Your task to perform on an android device: change text size in settings app Image 0: 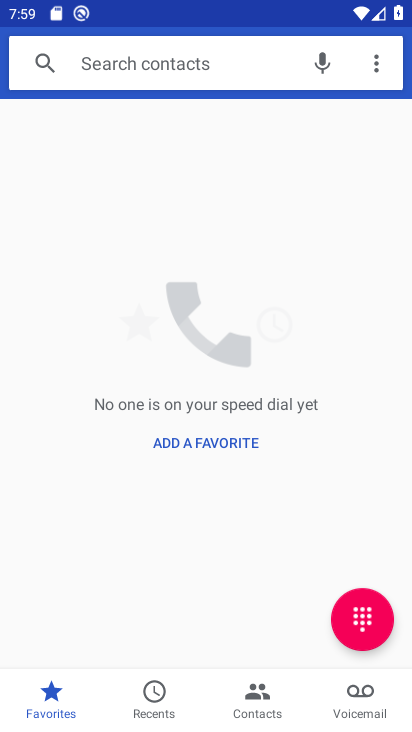
Step 0: press home button
Your task to perform on an android device: change text size in settings app Image 1: 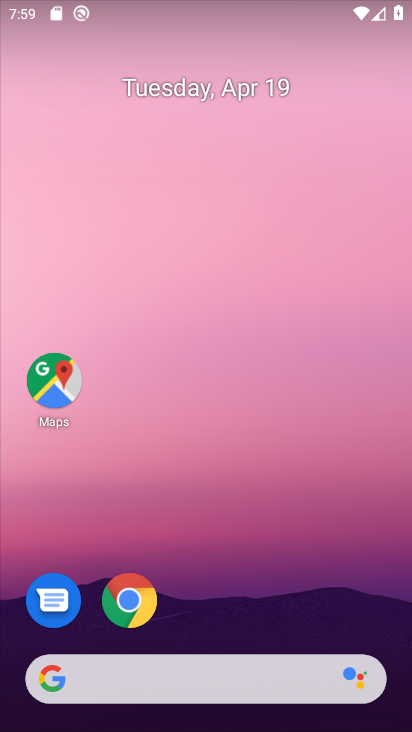
Step 1: drag from (356, 457) to (348, 123)
Your task to perform on an android device: change text size in settings app Image 2: 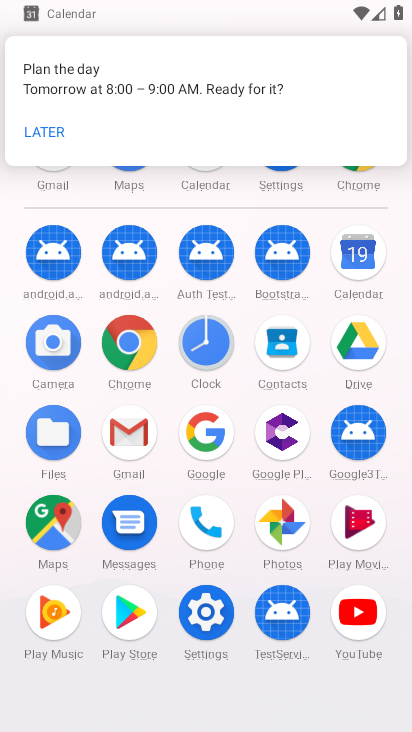
Step 2: click (212, 609)
Your task to perform on an android device: change text size in settings app Image 3: 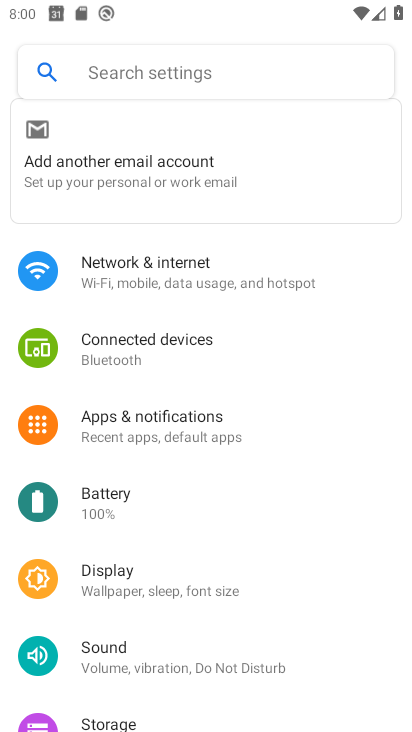
Step 3: drag from (344, 612) to (357, 421)
Your task to perform on an android device: change text size in settings app Image 4: 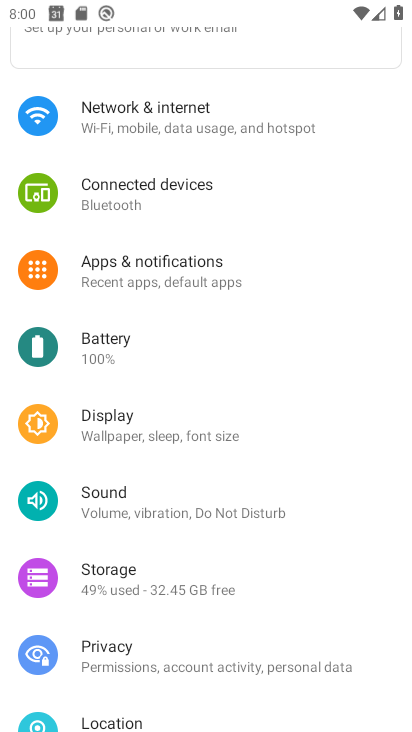
Step 4: drag from (354, 517) to (351, 327)
Your task to perform on an android device: change text size in settings app Image 5: 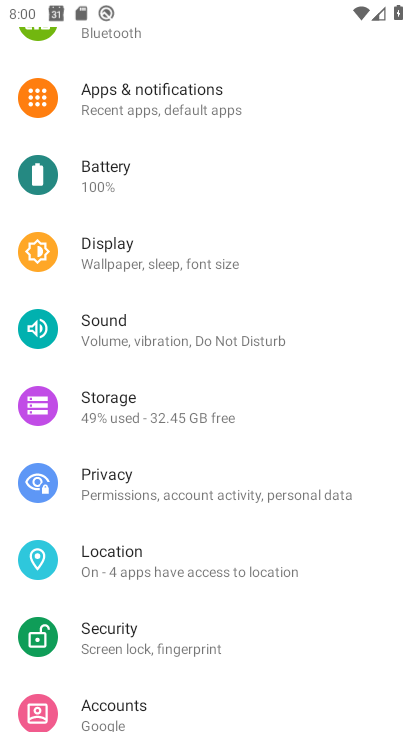
Step 5: drag from (371, 493) to (370, 271)
Your task to perform on an android device: change text size in settings app Image 6: 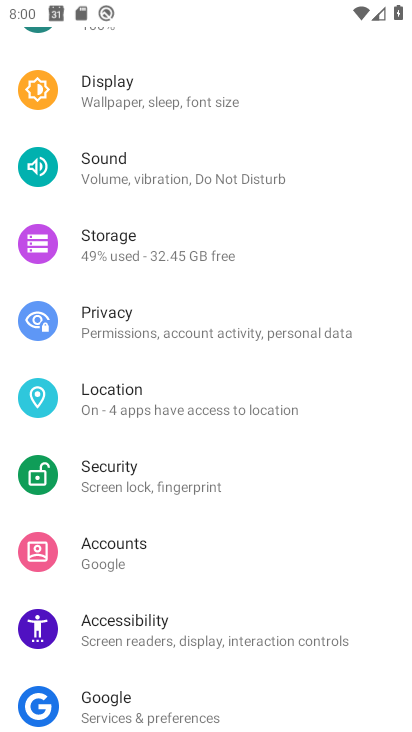
Step 6: drag from (369, 541) to (353, 341)
Your task to perform on an android device: change text size in settings app Image 7: 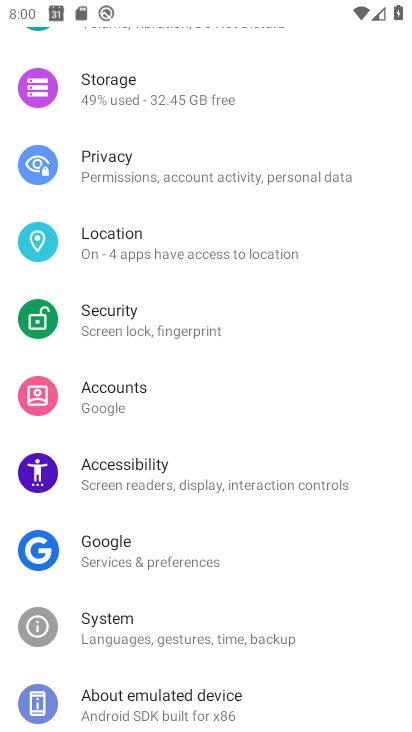
Step 7: drag from (360, 521) to (375, 341)
Your task to perform on an android device: change text size in settings app Image 8: 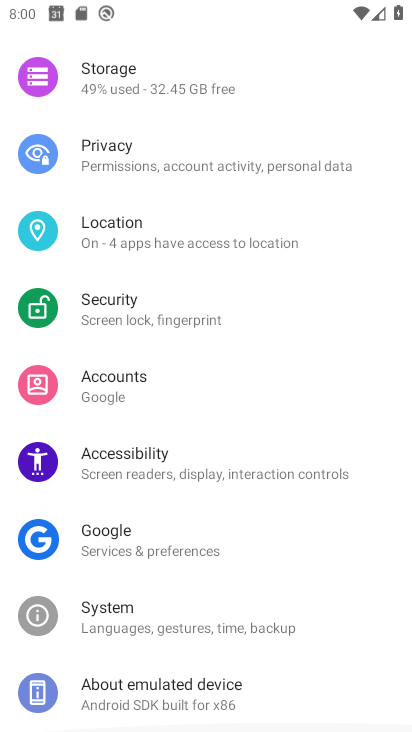
Step 8: drag from (377, 293) to (378, 495)
Your task to perform on an android device: change text size in settings app Image 9: 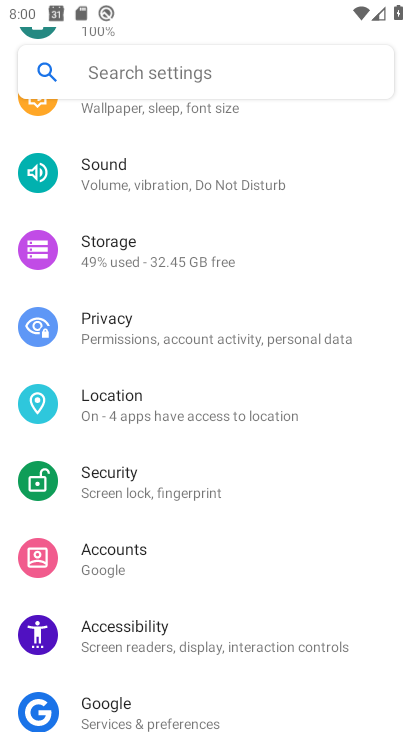
Step 9: drag from (387, 298) to (368, 516)
Your task to perform on an android device: change text size in settings app Image 10: 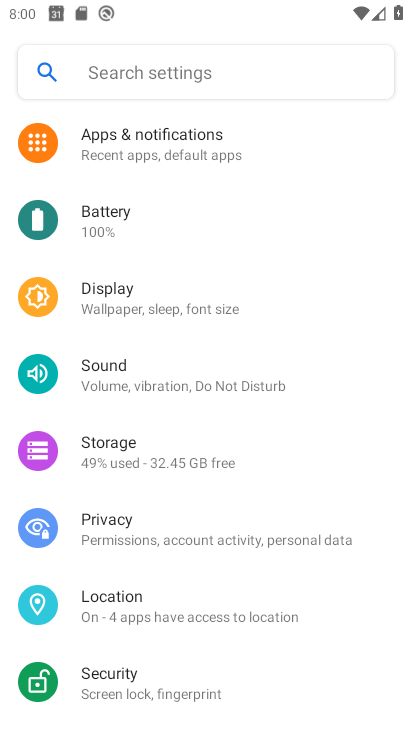
Step 10: drag from (366, 280) to (375, 465)
Your task to perform on an android device: change text size in settings app Image 11: 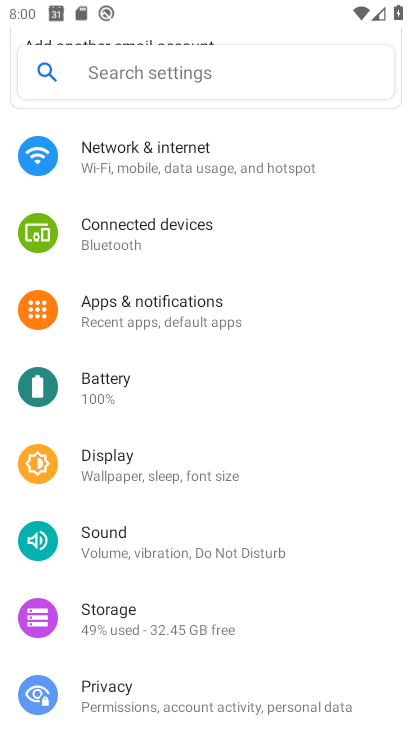
Step 11: click (125, 461)
Your task to perform on an android device: change text size in settings app Image 12: 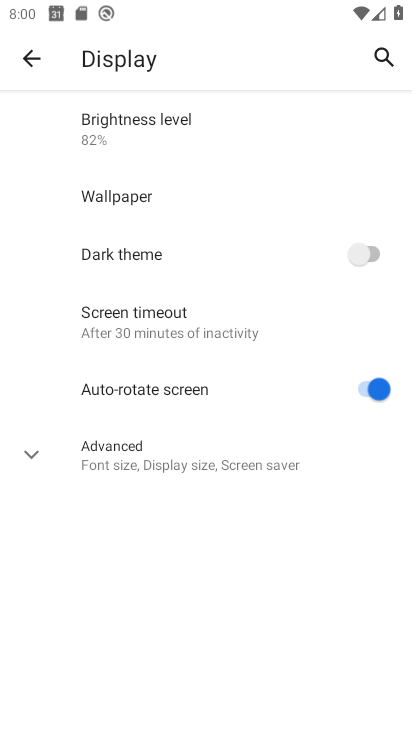
Step 12: click (125, 461)
Your task to perform on an android device: change text size in settings app Image 13: 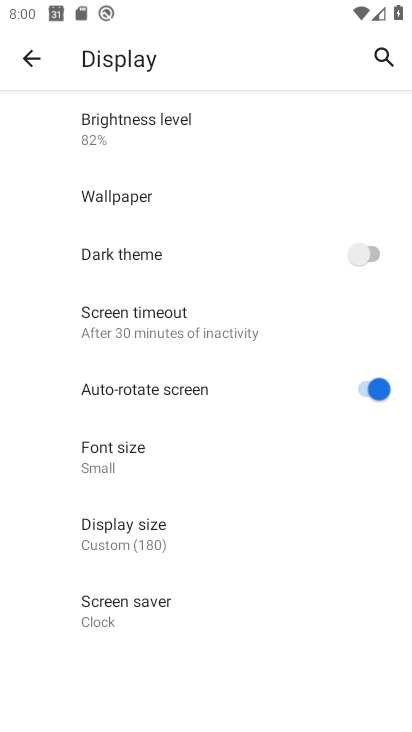
Step 13: click (113, 462)
Your task to perform on an android device: change text size in settings app Image 14: 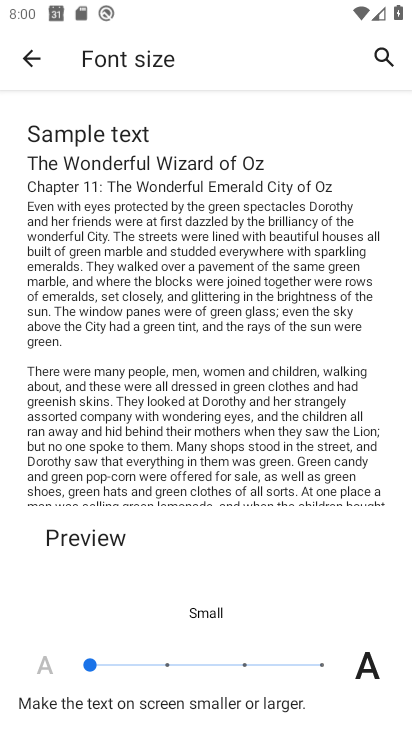
Step 14: click (167, 664)
Your task to perform on an android device: change text size in settings app Image 15: 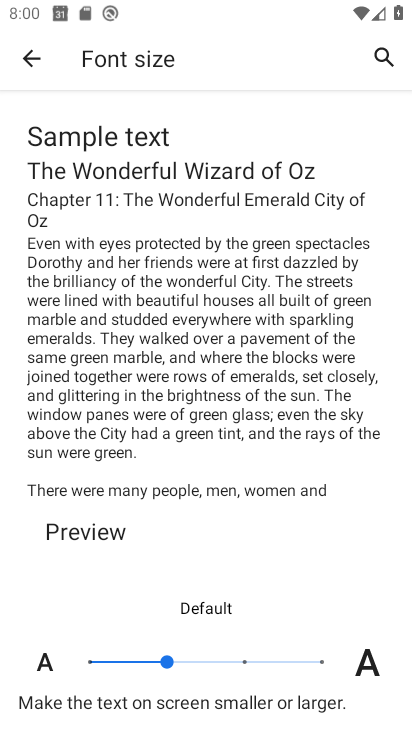
Step 15: task complete